Your task to perform on an android device: open app "Roku - Official Remote Control" (install if not already installed), go to login, and select forgot password Image 0: 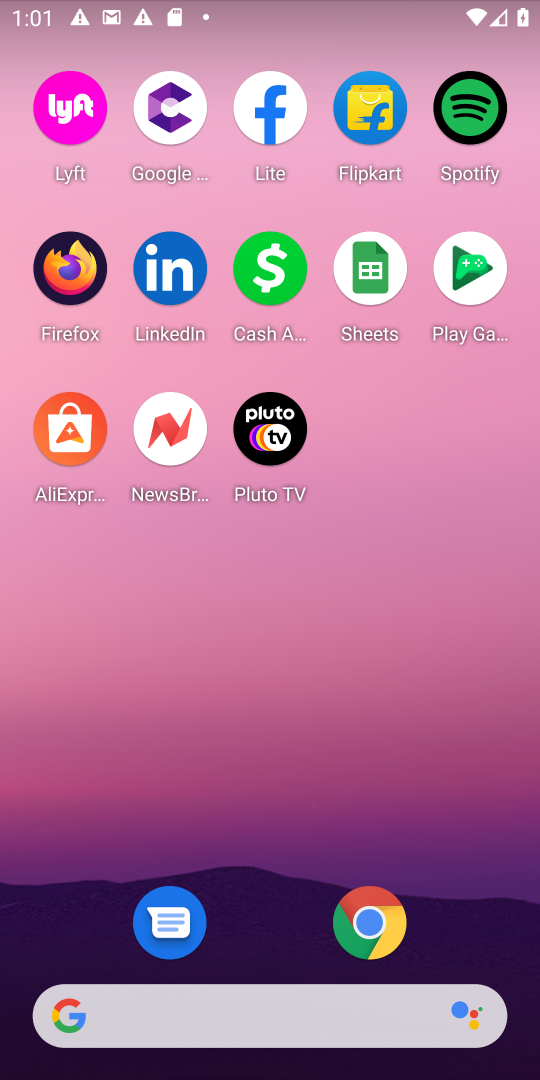
Step 0: drag from (254, 606) to (305, 14)
Your task to perform on an android device: open app "Roku - Official Remote Control" (install if not already installed), go to login, and select forgot password Image 1: 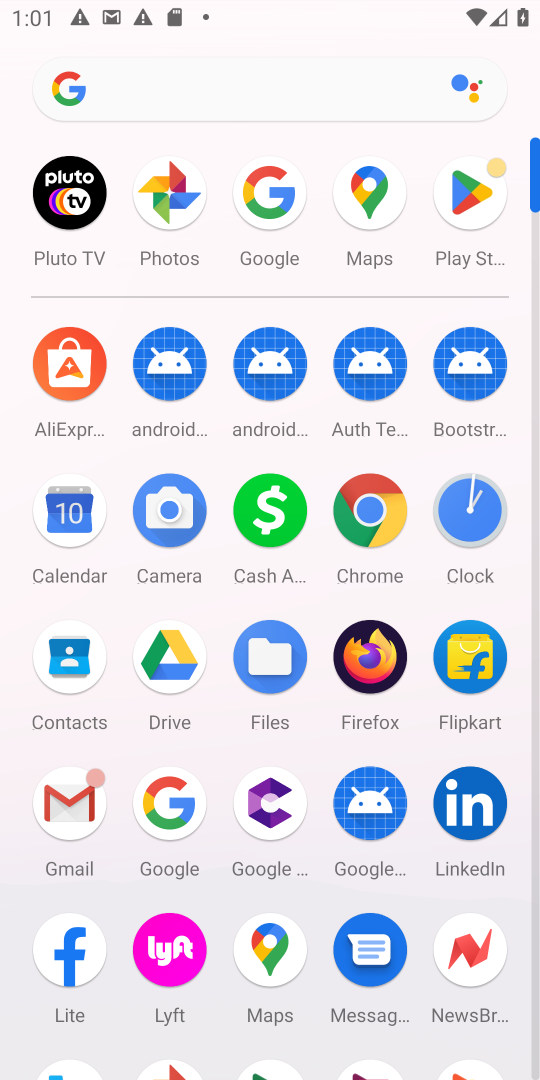
Step 1: click (466, 205)
Your task to perform on an android device: open app "Roku - Official Remote Control" (install if not already installed), go to login, and select forgot password Image 2: 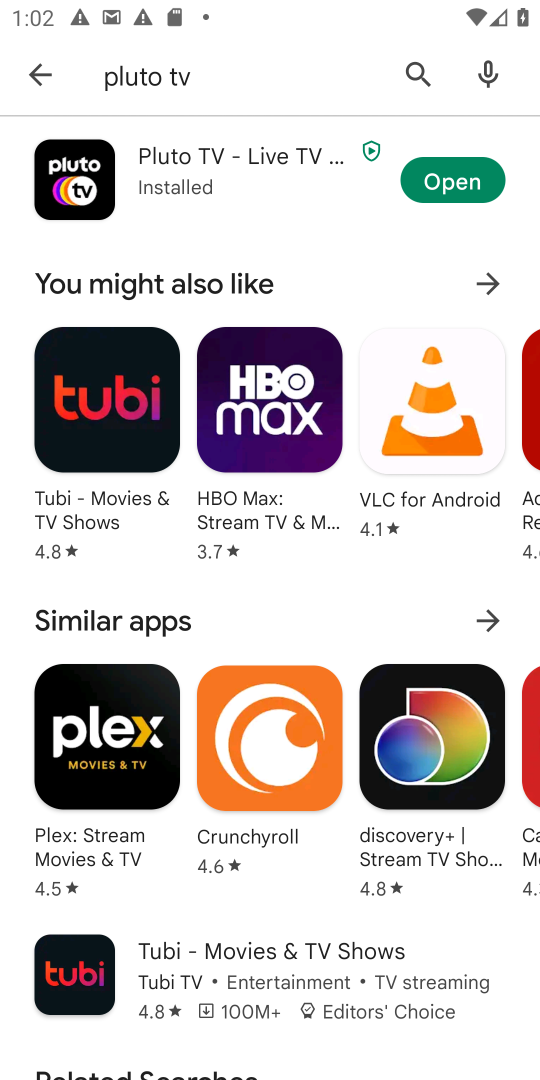
Step 2: click (34, 81)
Your task to perform on an android device: open app "Roku - Official Remote Control" (install if not already installed), go to login, and select forgot password Image 3: 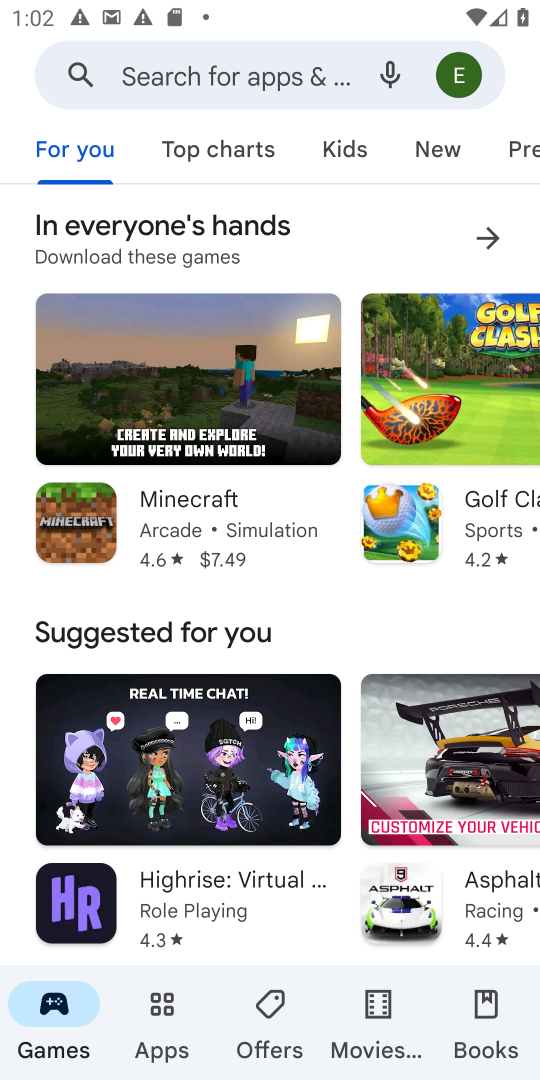
Step 3: click (173, 84)
Your task to perform on an android device: open app "Roku - Official Remote Control" (install if not already installed), go to login, and select forgot password Image 4: 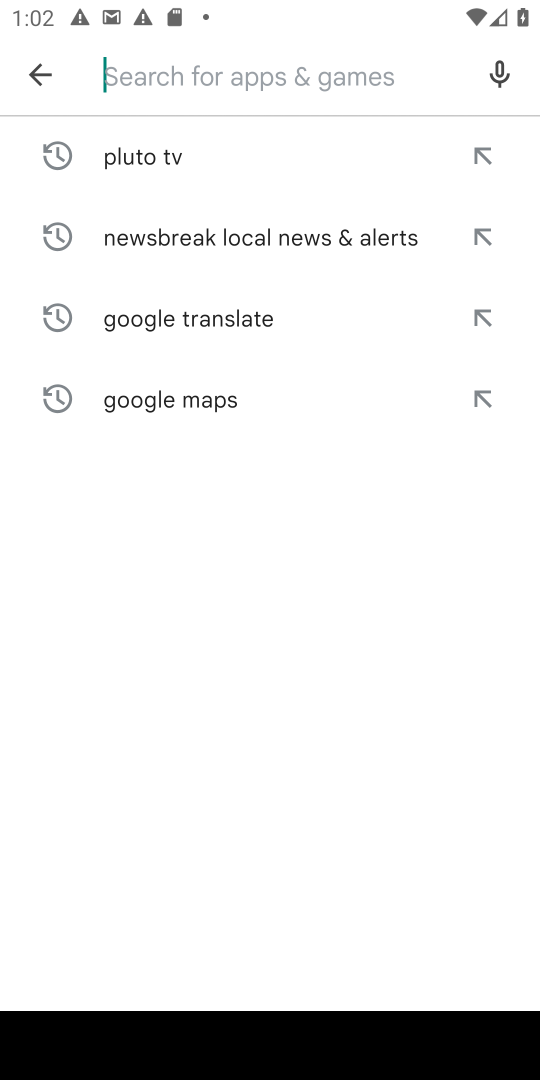
Step 4: type "Roku - Official Remote Control"
Your task to perform on an android device: open app "Roku - Official Remote Control" (install if not already installed), go to login, and select forgot password Image 5: 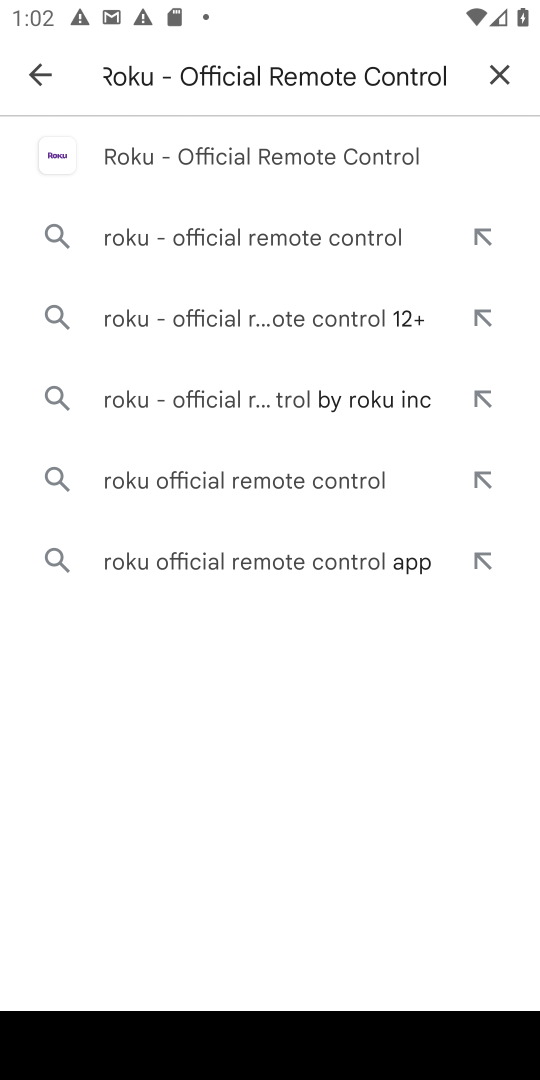
Step 5: click (347, 160)
Your task to perform on an android device: open app "Roku - Official Remote Control" (install if not already installed), go to login, and select forgot password Image 6: 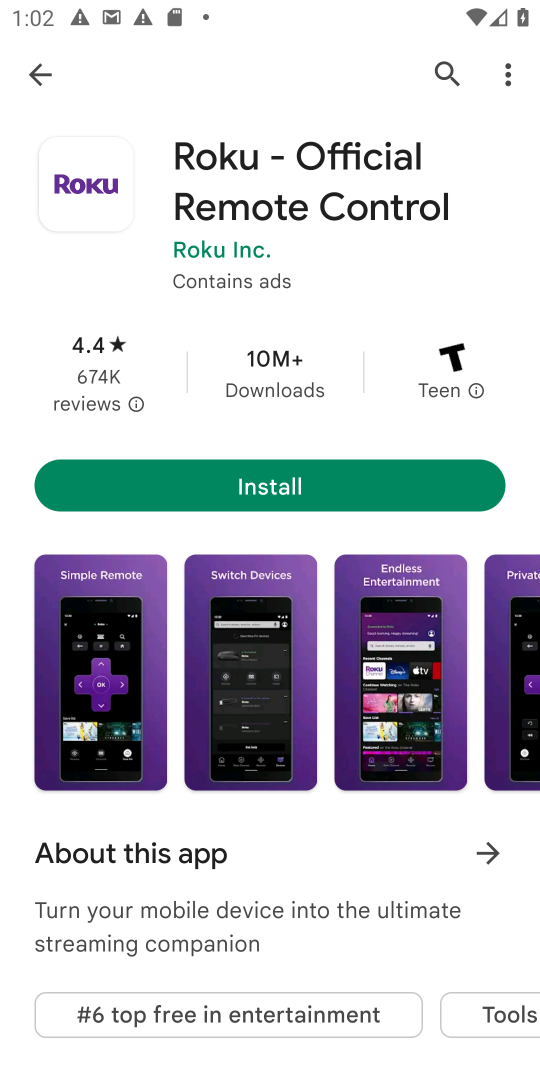
Step 6: click (265, 480)
Your task to perform on an android device: open app "Roku - Official Remote Control" (install if not already installed), go to login, and select forgot password Image 7: 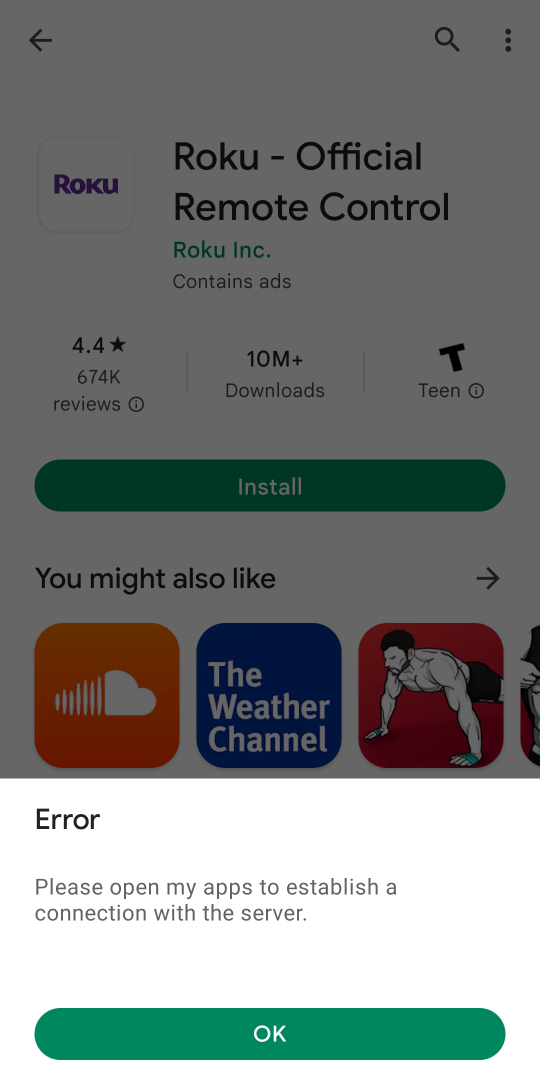
Step 7: task complete